Your task to perform on an android device: What's the weather? Image 0: 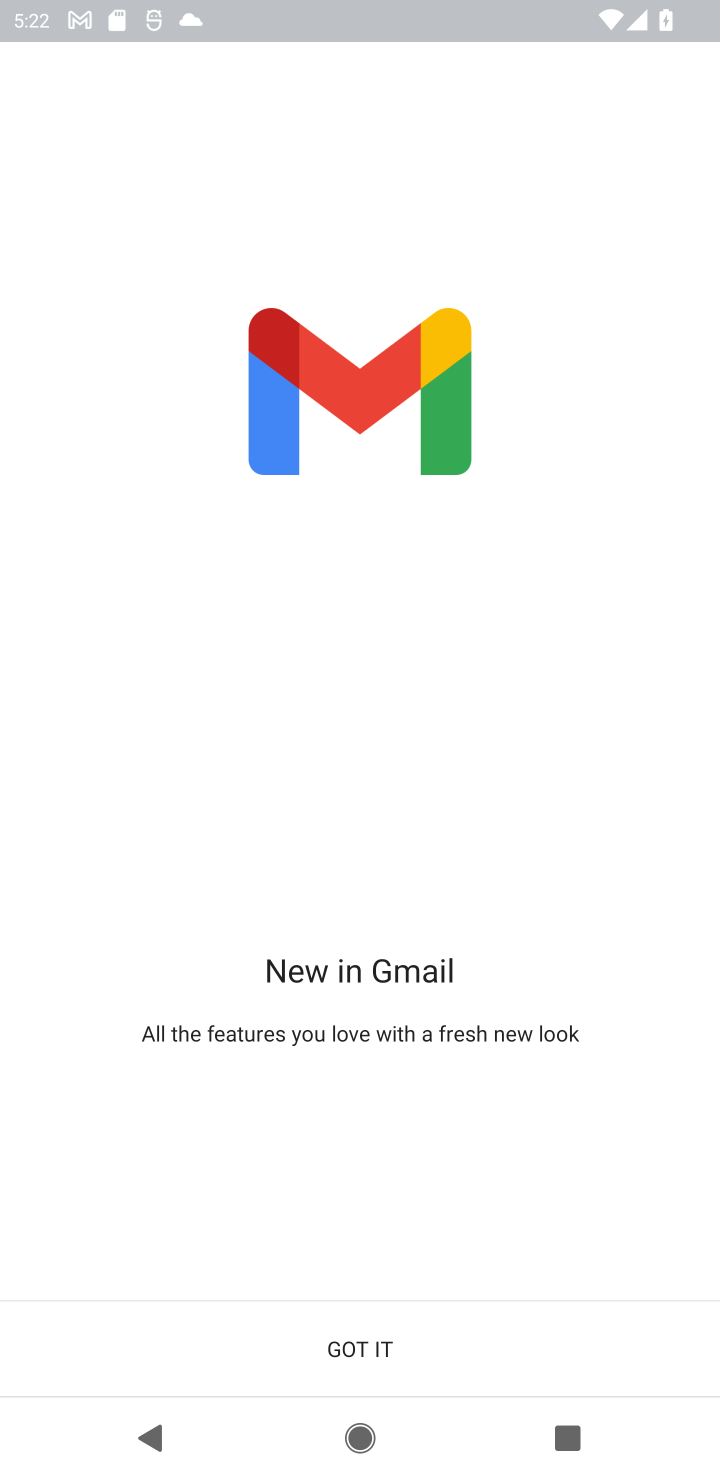
Step 0: press home button
Your task to perform on an android device: What's the weather? Image 1: 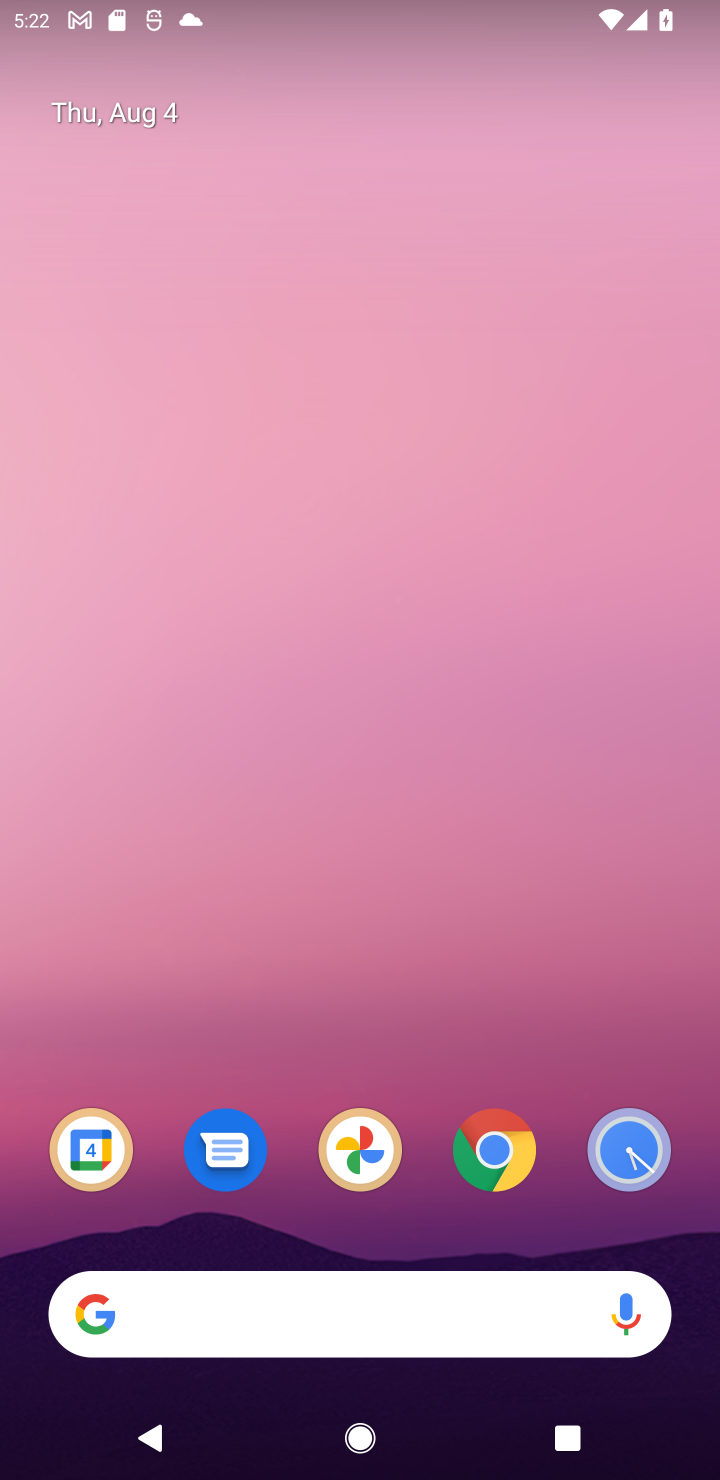
Step 1: click (229, 1327)
Your task to perform on an android device: What's the weather? Image 2: 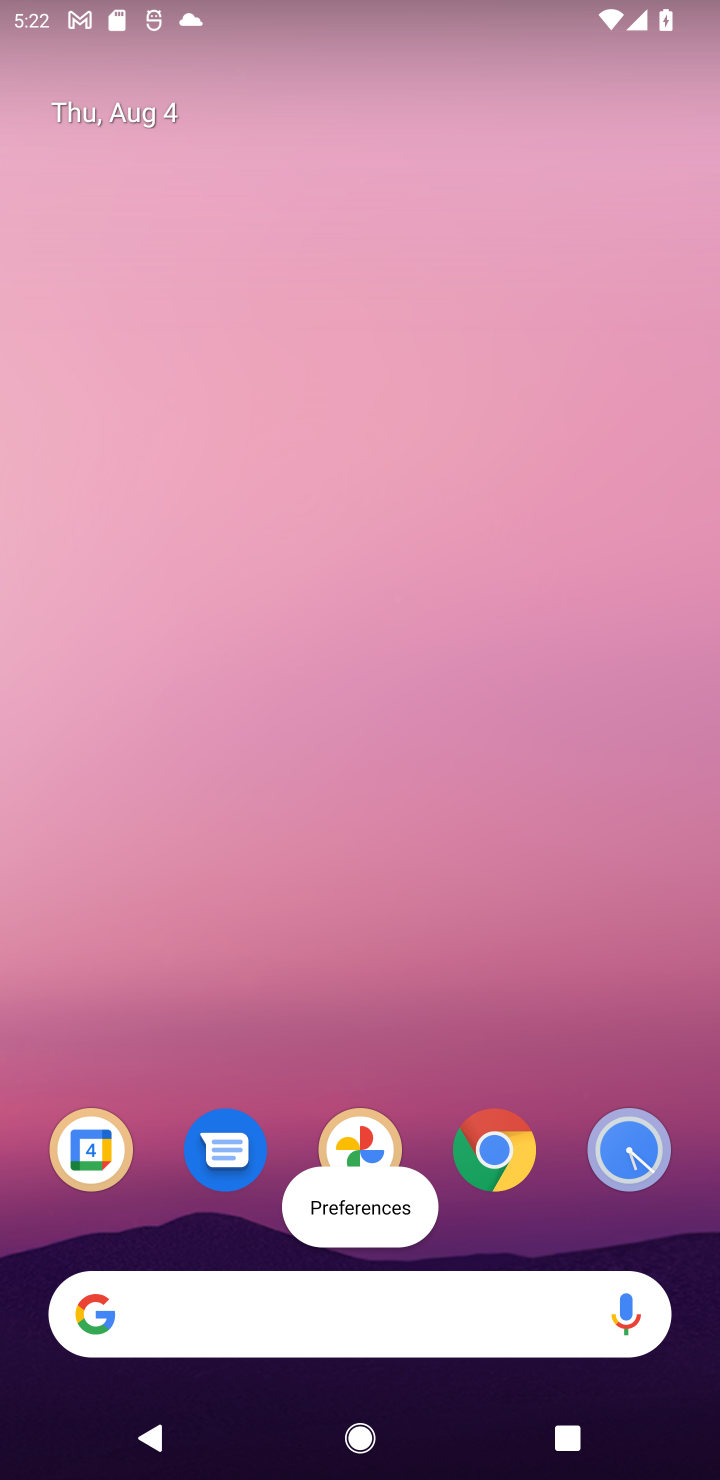
Step 2: click (243, 1305)
Your task to perform on an android device: What's the weather? Image 3: 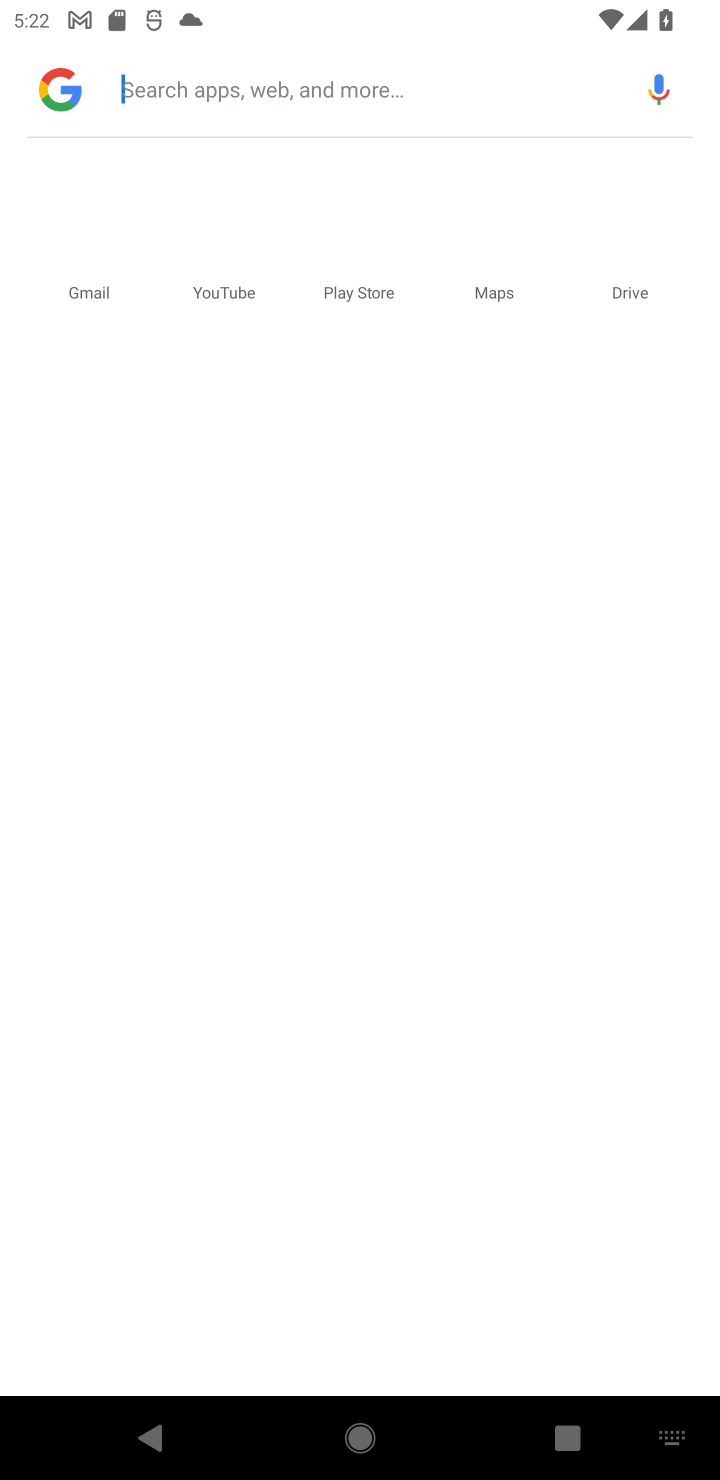
Step 3: type "weather"
Your task to perform on an android device: What's the weather? Image 4: 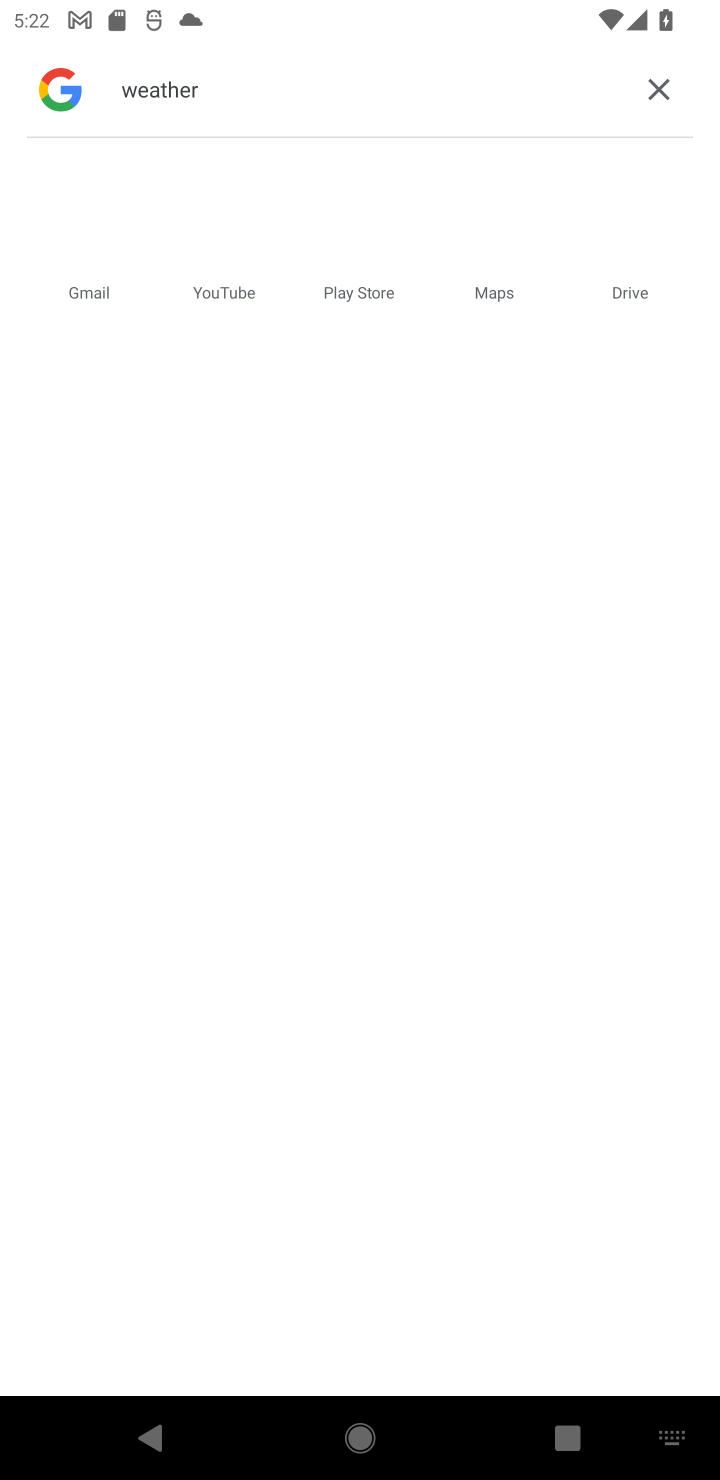
Step 4: click (289, 100)
Your task to perform on an android device: What's the weather? Image 5: 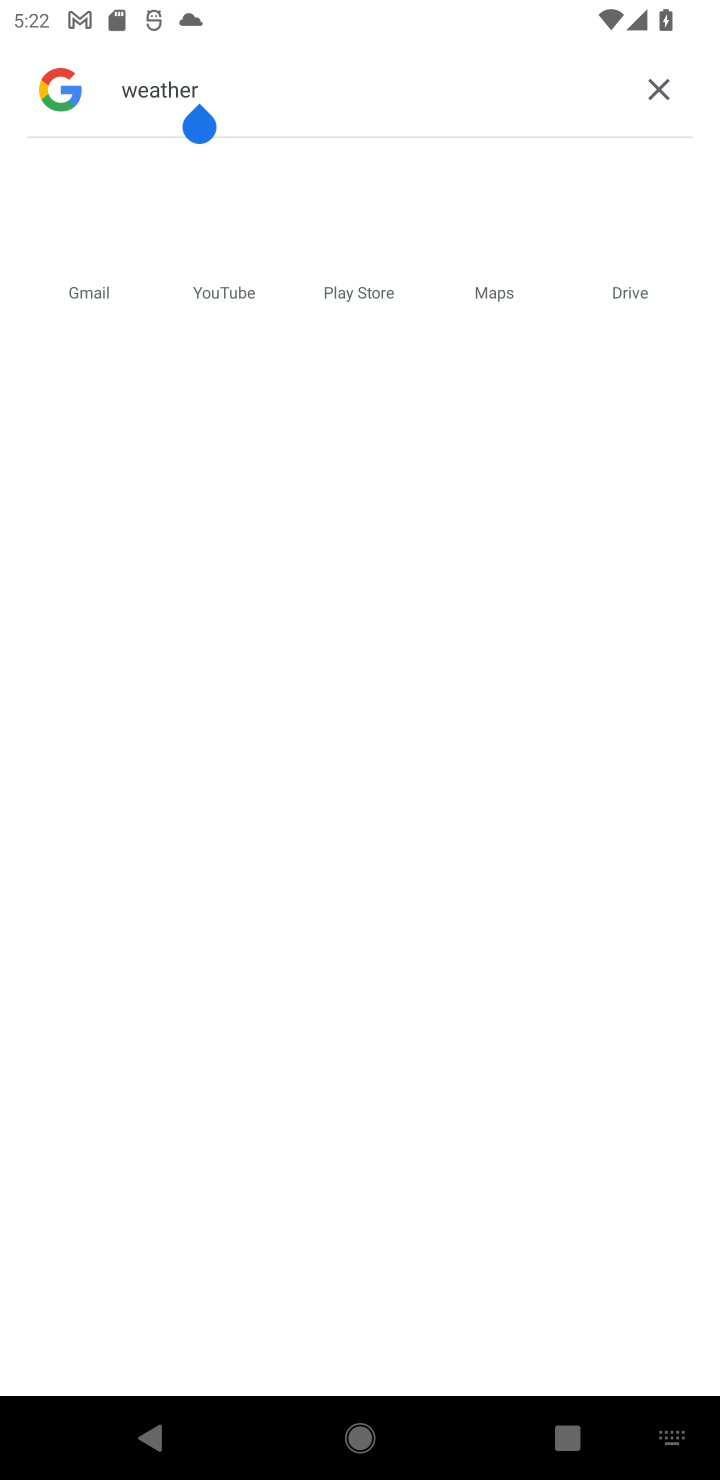
Step 5: drag from (228, 623) to (248, 119)
Your task to perform on an android device: What's the weather? Image 6: 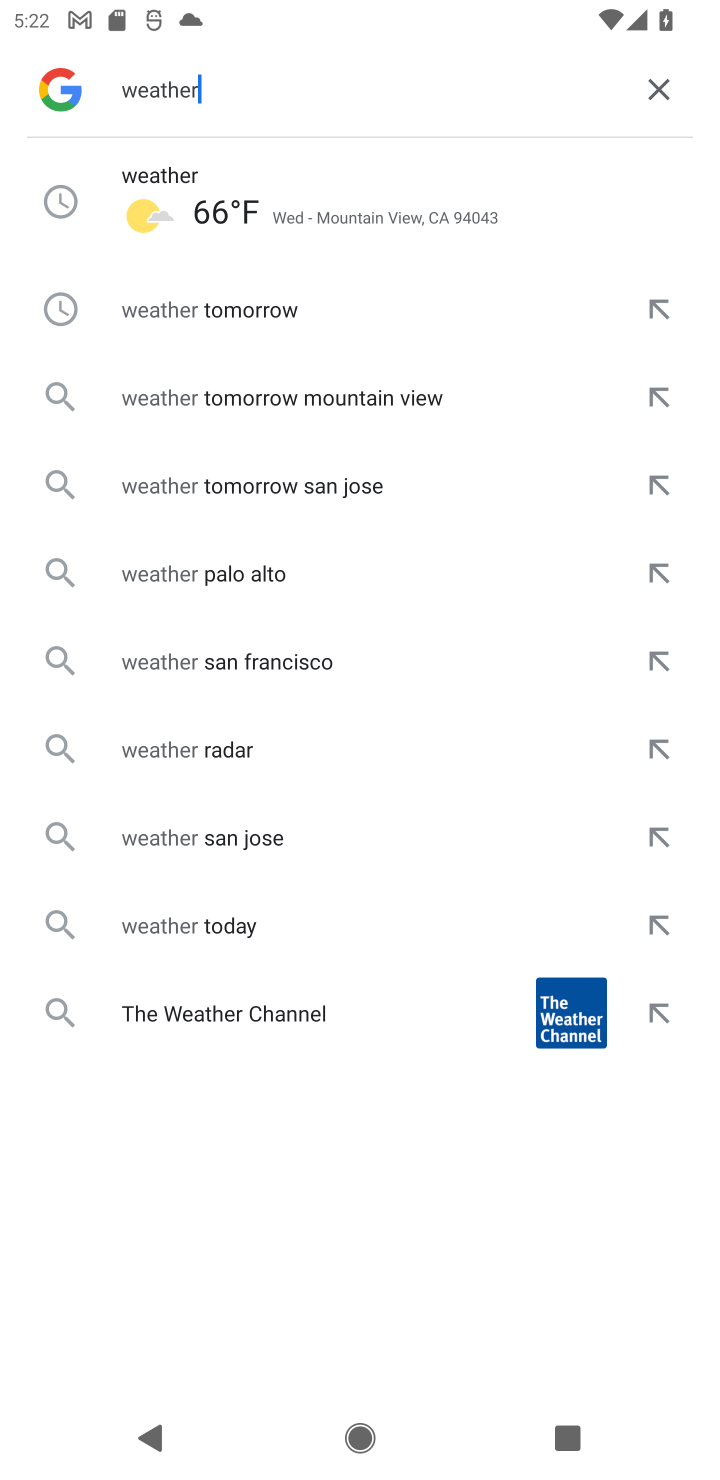
Step 6: click (199, 196)
Your task to perform on an android device: What's the weather? Image 7: 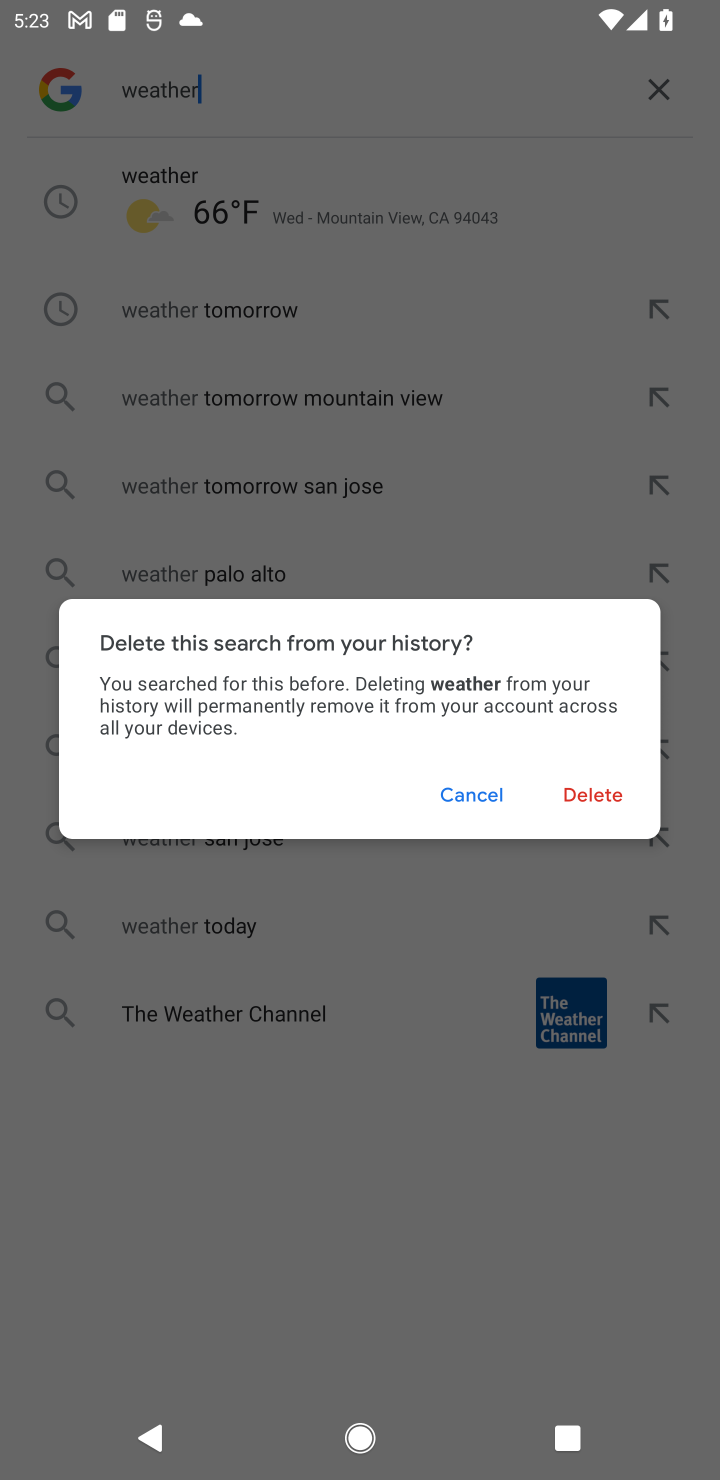
Step 7: click (475, 788)
Your task to perform on an android device: What's the weather? Image 8: 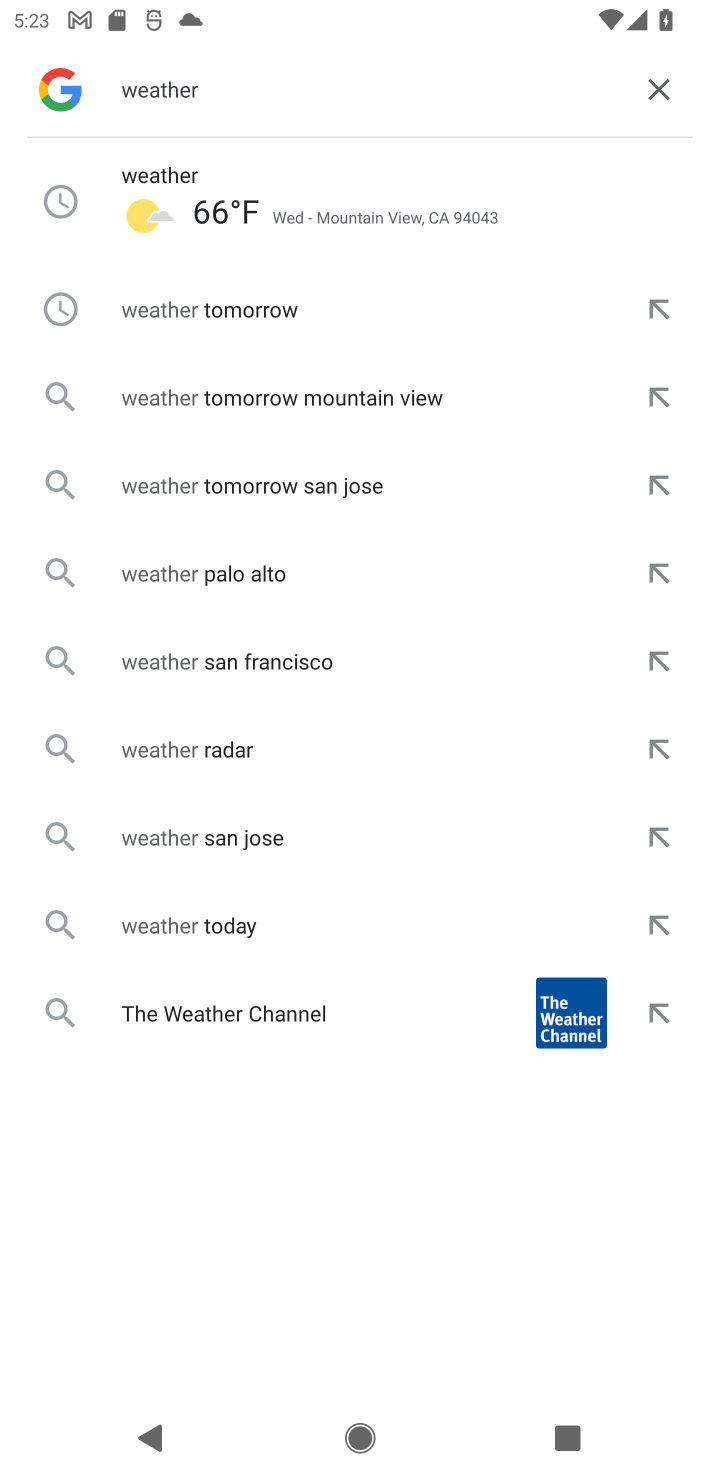
Step 8: click (284, 156)
Your task to perform on an android device: What's the weather? Image 9: 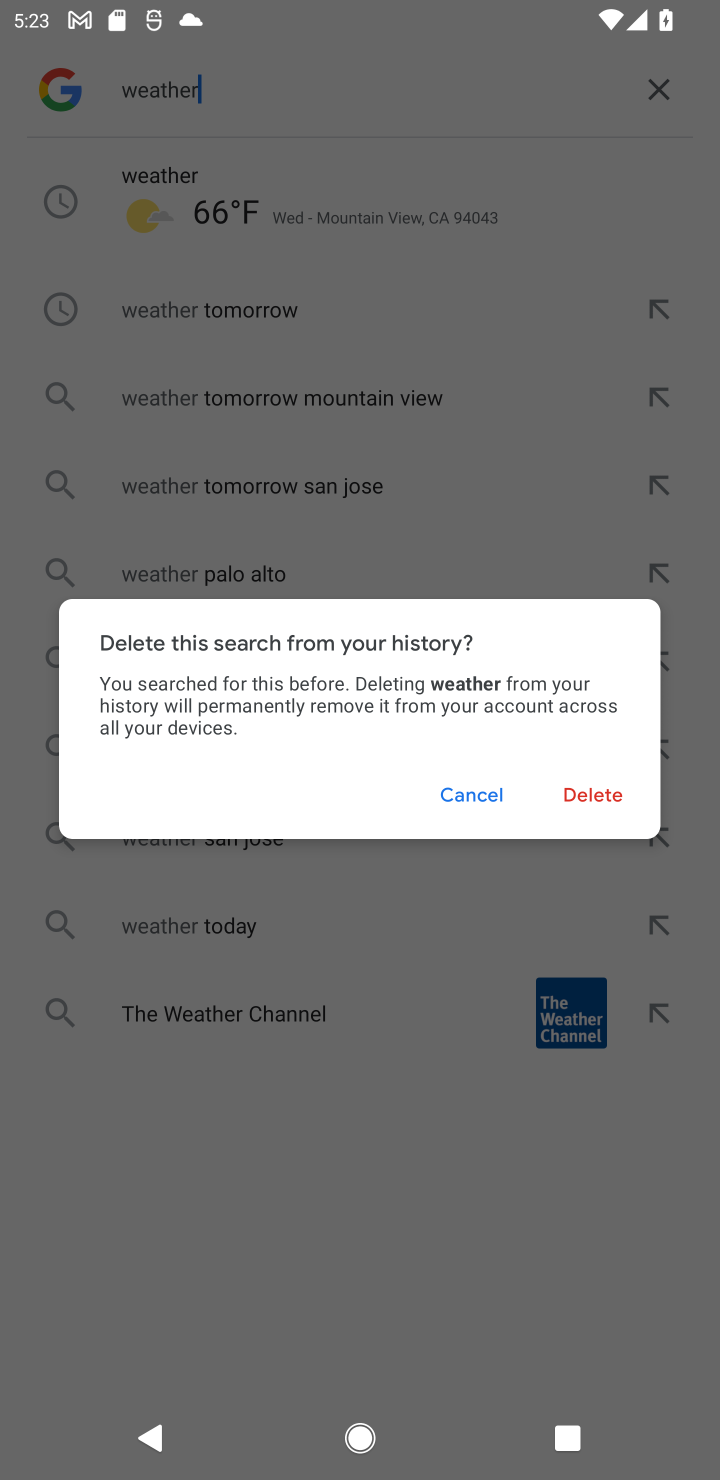
Step 9: click (461, 785)
Your task to perform on an android device: What's the weather? Image 10: 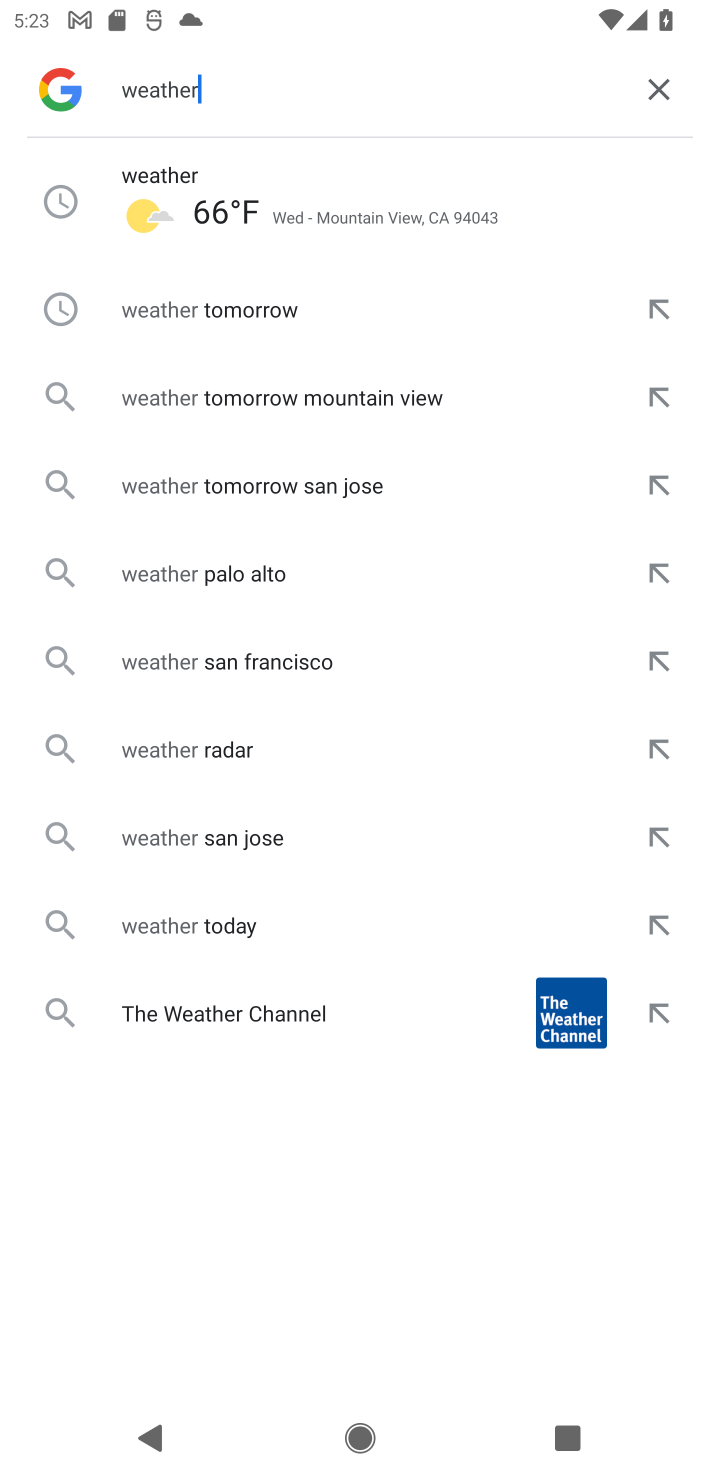
Step 10: click (300, 228)
Your task to perform on an android device: What's the weather? Image 11: 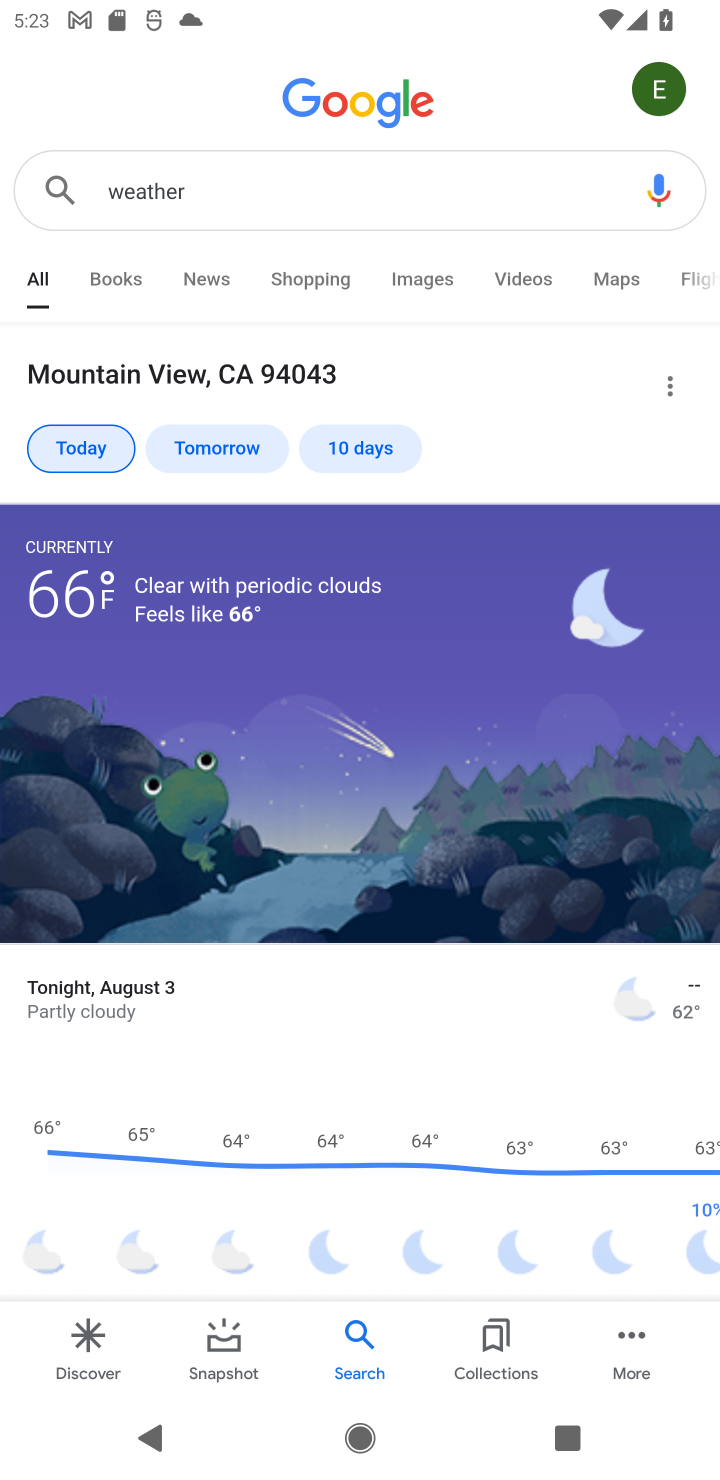
Step 11: task complete